Your task to perform on an android device: Open settings Image 0: 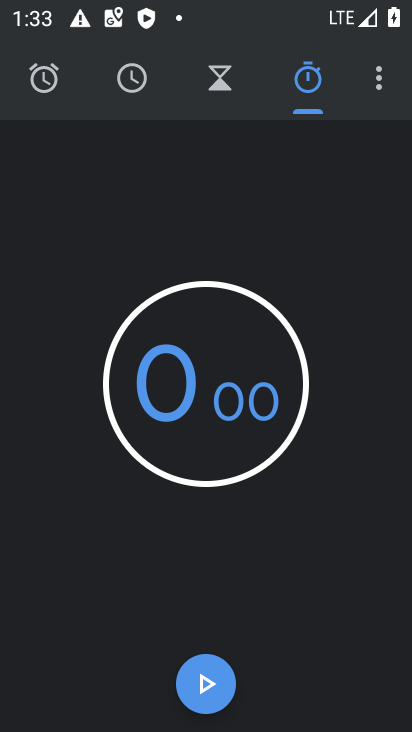
Step 0: press home button
Your task to perform on an android device: Open settings Image 1: 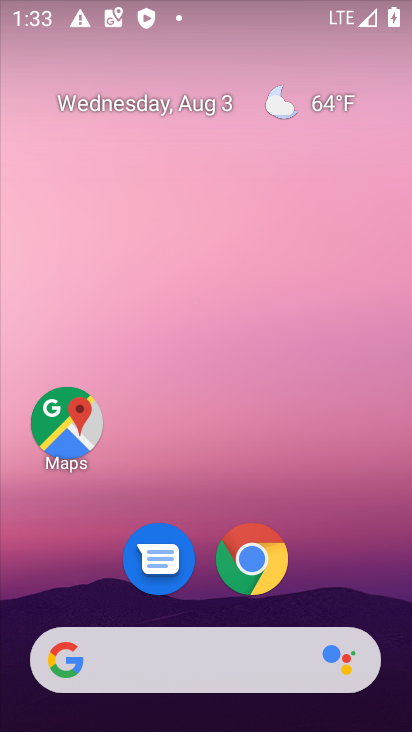
Step 1: drag from (217, 621) to (204, 12)
Your task to perform on an android device: Open settings Image 2: 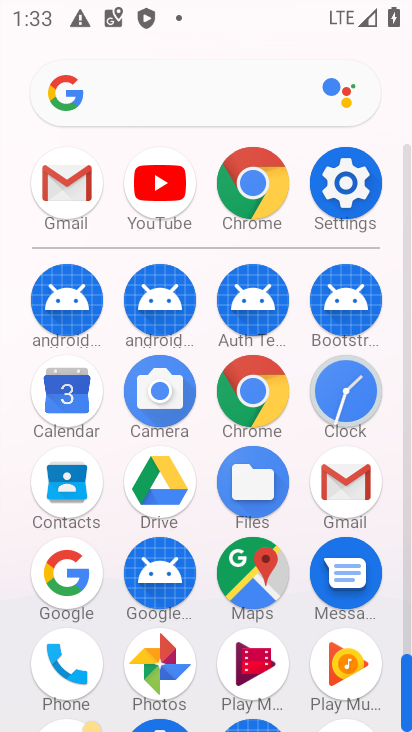
Step 2: click (344, 172)
Your task to perform on an android device: Open settings Image 3: 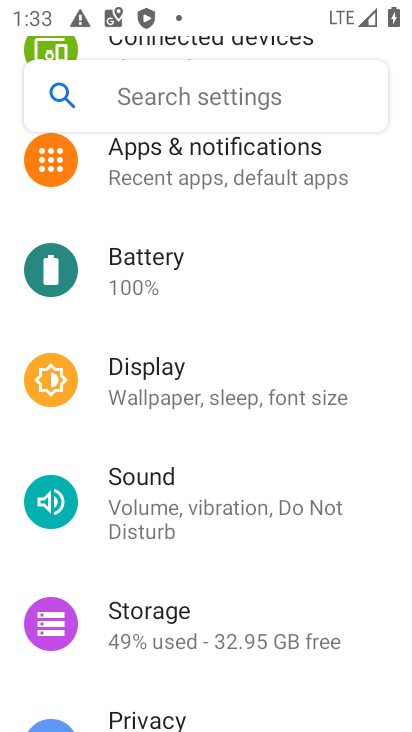
Step 3: task complete